Your task to perform on an android device: turn off location Image 0: 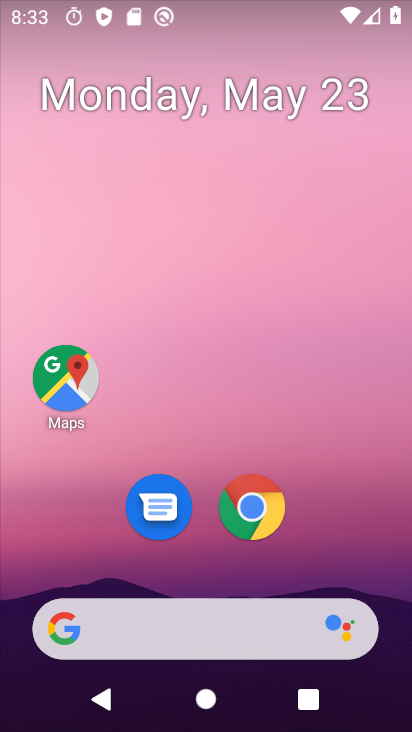
Step 0: drag from (346, 559) to (224, 2)
Your task to perform on an android device: turn off location Image 1: 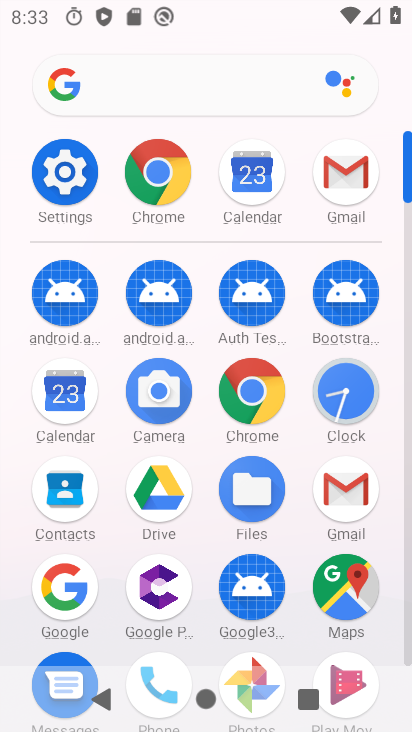
Step 1: click (79, 182)
Your task to perform on an android device: turn off location Image 2: 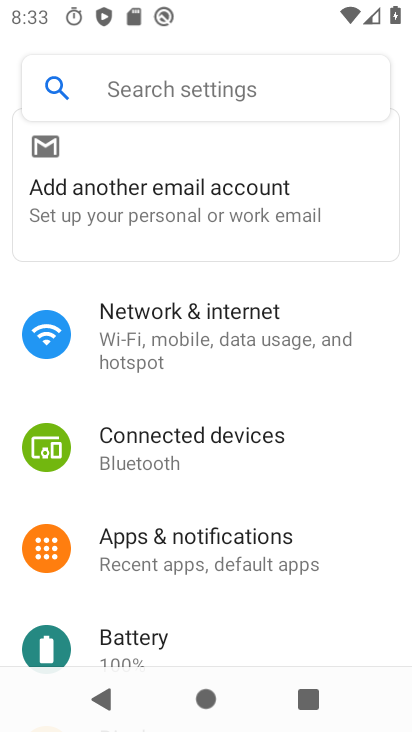
Step 2: drag from (188, 595) to (149, 210)
Your task to perform on an android device: turn off location Image 3: 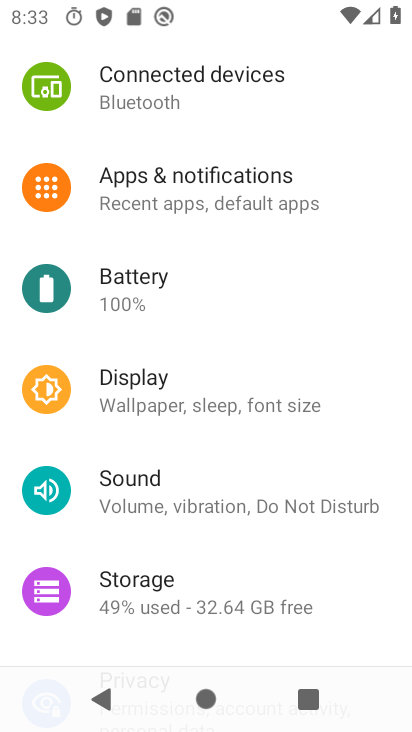
Step 3: drag from (182, 593) to (192, 196)
Your task to perform on an android device: turn off location Image 4: 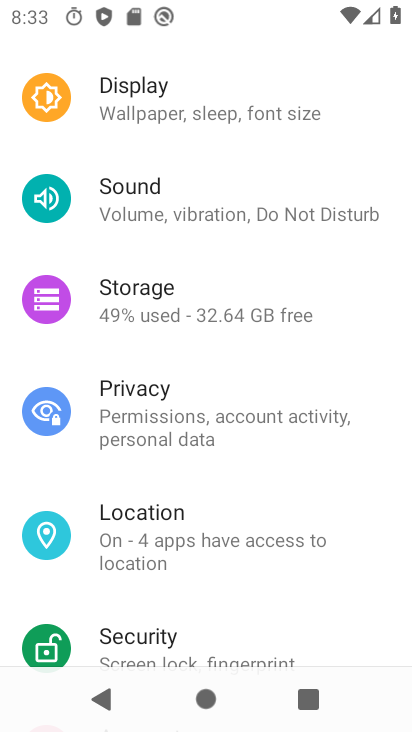
Step 4: click (169, 520)
Your task to perform on an android device: turn off location Image 5: 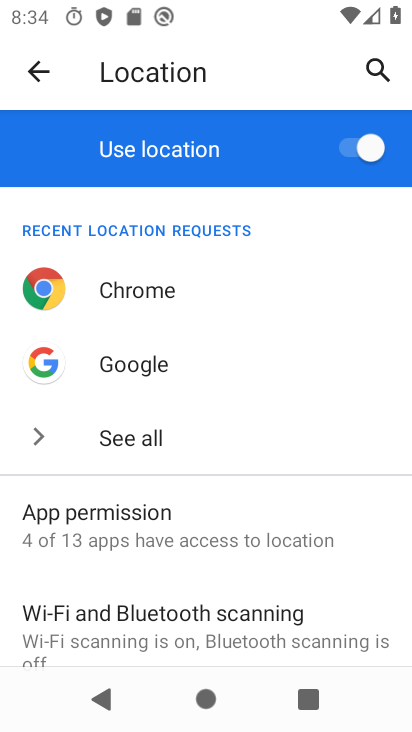
Step 5: drag from (222, 610) to (148, 200)
Your task to perform on an android device: turn off location Image 6: 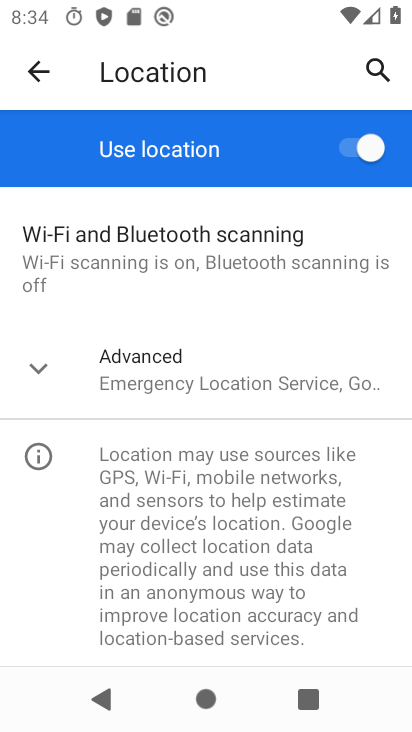
Step 6: click (367, 152)
Your task to perform on an android device: turn off location Image 7: 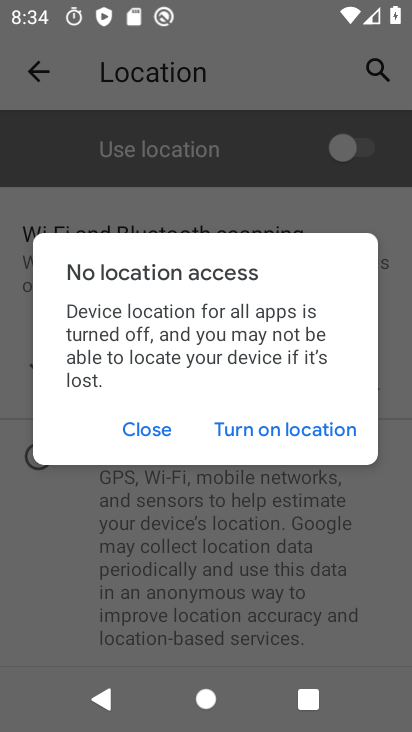
Step 7: task complete